Your task to perform on an android device: stop showing notifications on the lock screen Image 0: 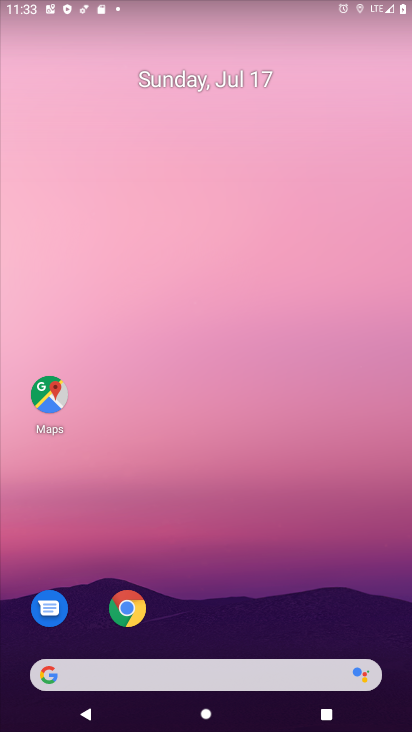
Step 0: drag from (189, 646) to (325, 25)
Your task to perform on an android device: stop showing notifications on the lock screen Image 1: 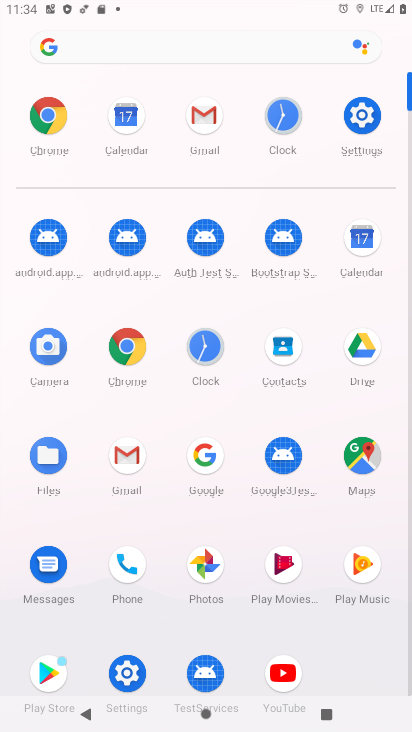
Step 1: click (122, 660)
Your task to perform on an android device: stop showing notifications on the lock screen Image 2: 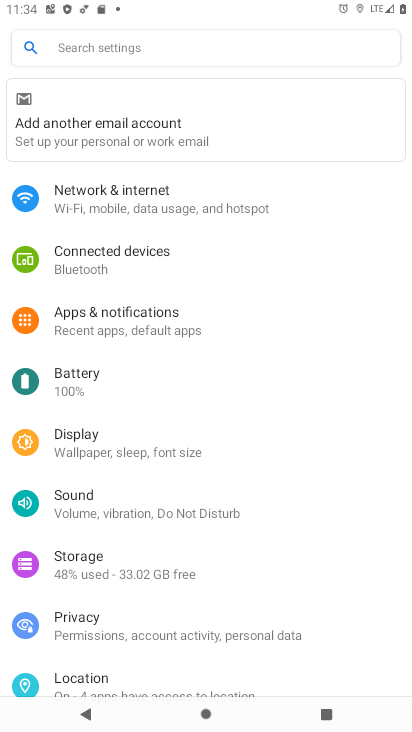
Step 2: click (90, 324)
Your task to perform on an android device: stop showing notifications on the lock screen Image 3: 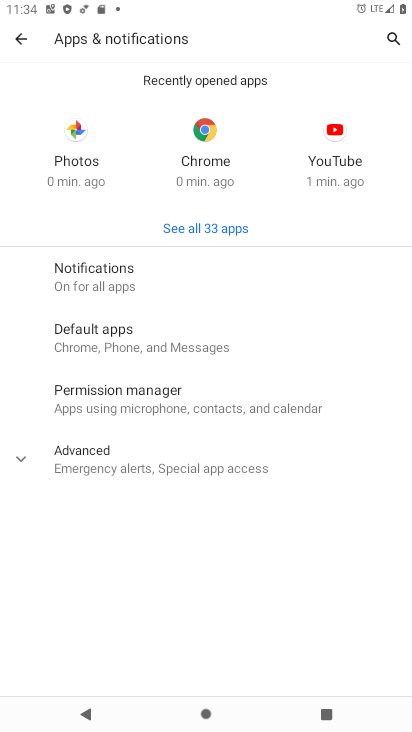
Step 3: click (92, 266)
Your task to perform on an android device: stop showing notifications on the lock screen Image 4: 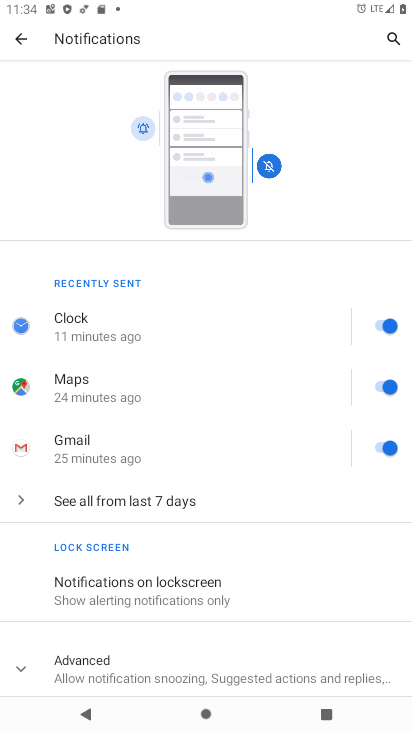
Step 4: click (199, 589)
Your task to perform on an android device: stop showing notifications on the lock screen Image 5: 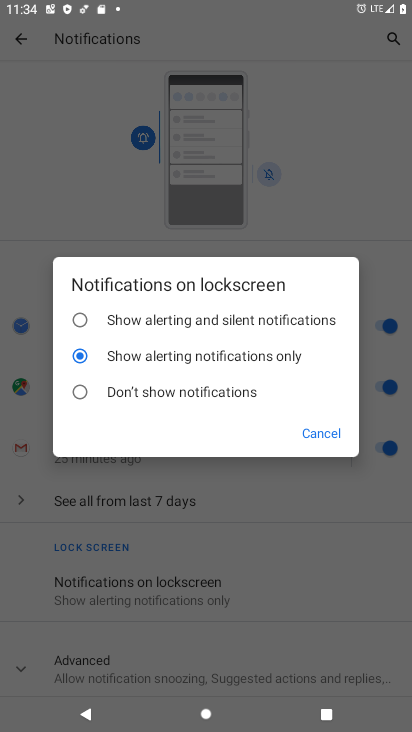
Step 5: click (189, 387)
Your task to perform on an android device: stop showing notifications on the lock screen Image 6: 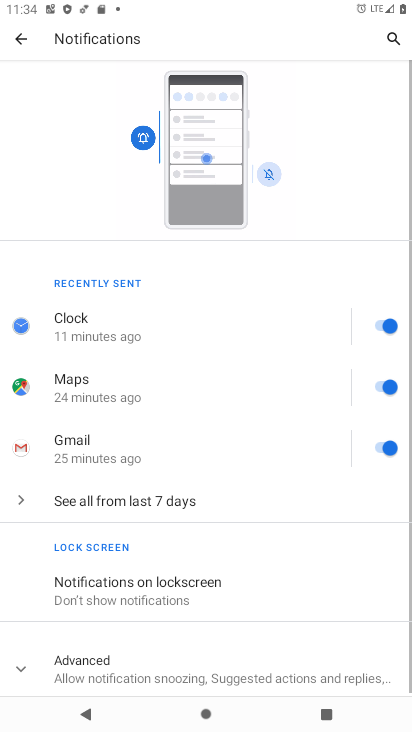
Step 6: task complete